Your task to perform on an android device: What is the recent news? Image 0: 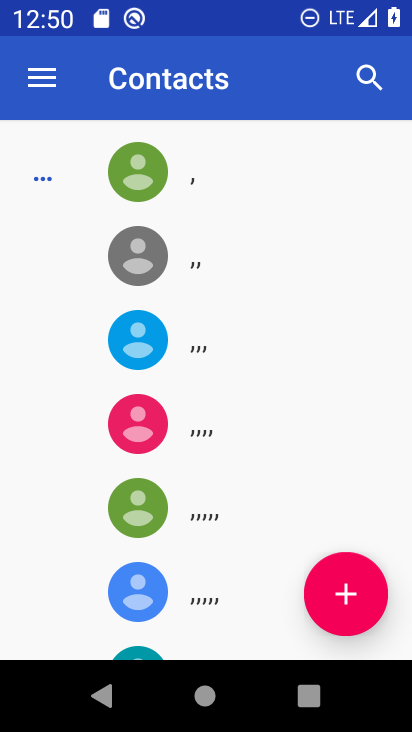
Step 0: press home button
Your task to perform on an android device: What is the recent news? Image 1: 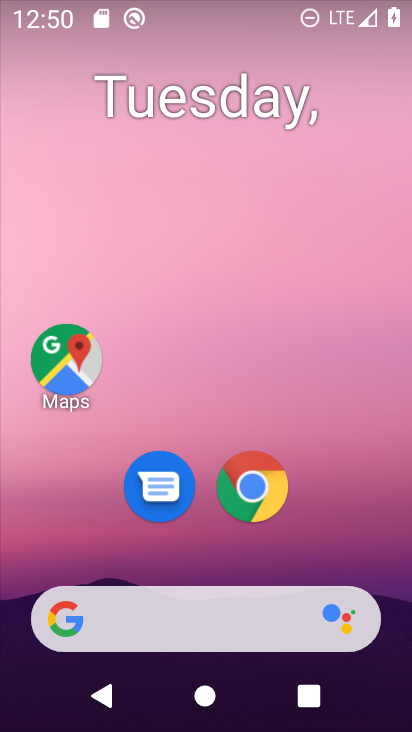
Step 1: drag from (248, 575) to (247, 191)
Your task to perform on an android device: What is the recent news? Image 2: 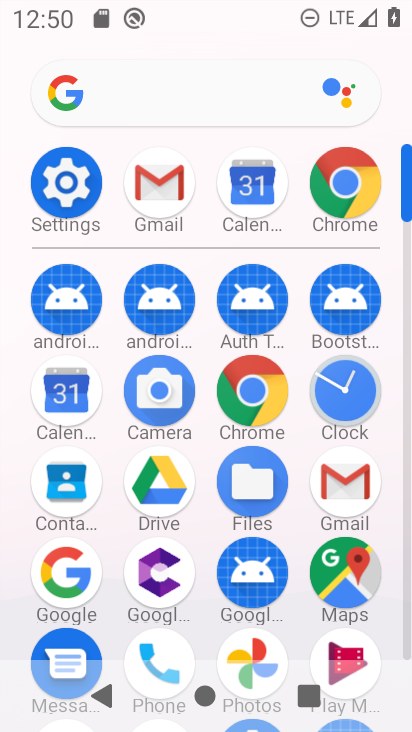
Step 2: click (51, 580)
Your task to perform on an android device: What is the recent news? Image 3: 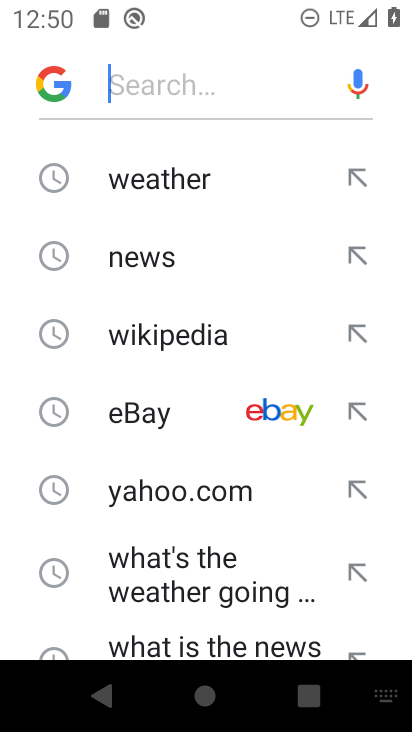
Step 3: press back button
Your task to perform on an android device: What is the recent news? Image 4: 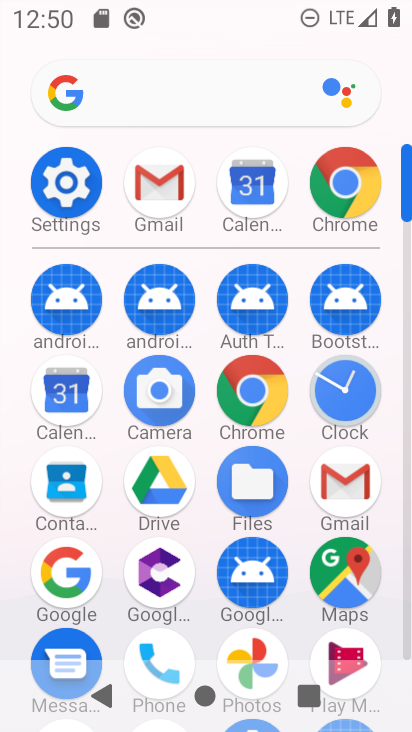
Step 4: click (79, 586)
Your task to perform on an android device: What is the recent news? Image 5: 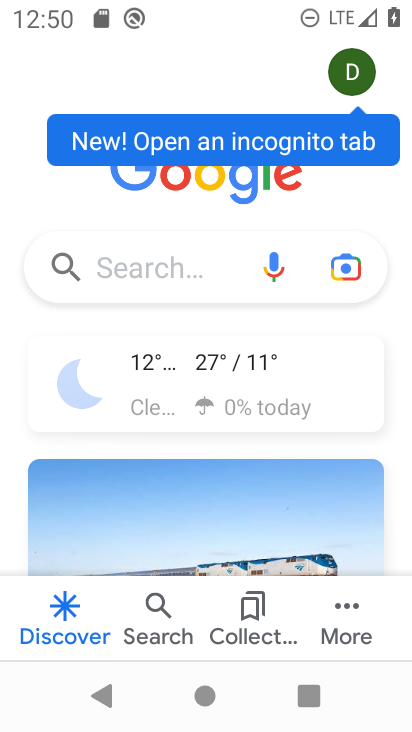
Step 5: task complete